Your task to perform on an android device: check android version Image 0: 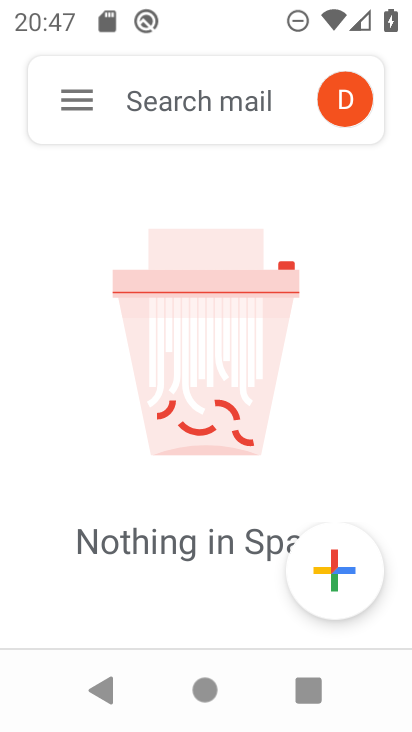
Step 0: press home button
Your task to perform on an android device: check android version Image 1: 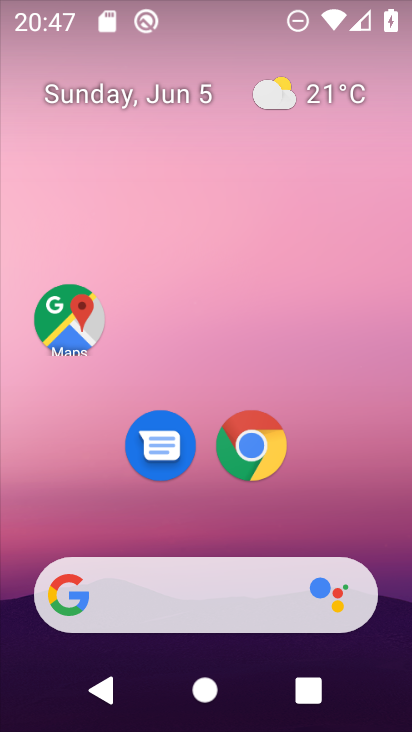
Step 1: drag from (316, 500) to (339, 69)
Your task to perform on an android device: check android version Image 2: 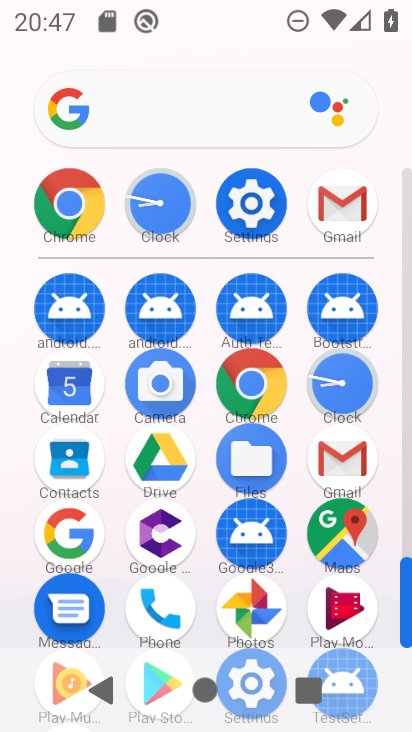
Step 2: click (257, 195)
Your task to perform on an android device: check android version Image 3: 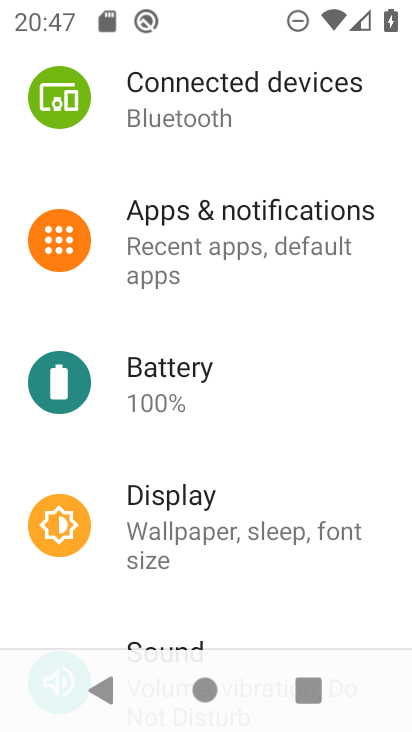
Step 3: drag from (28, 599) to (197, 32)
Your task to perform on an android device: check android version Image 4: 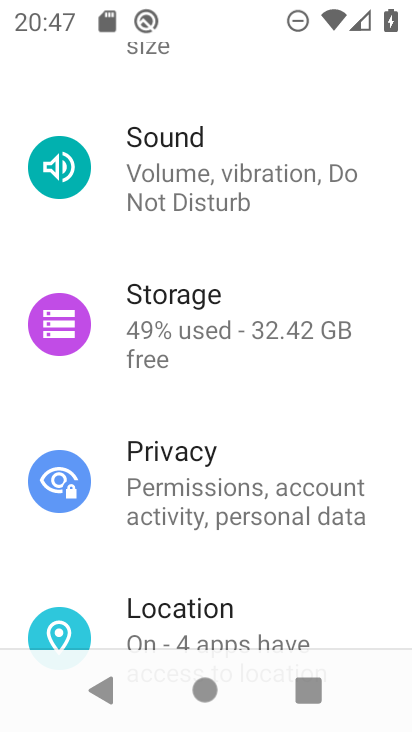
Step 4: drag from (31, 567) to (78, 58)
Your task to perform on an android device: check android version Image 5: 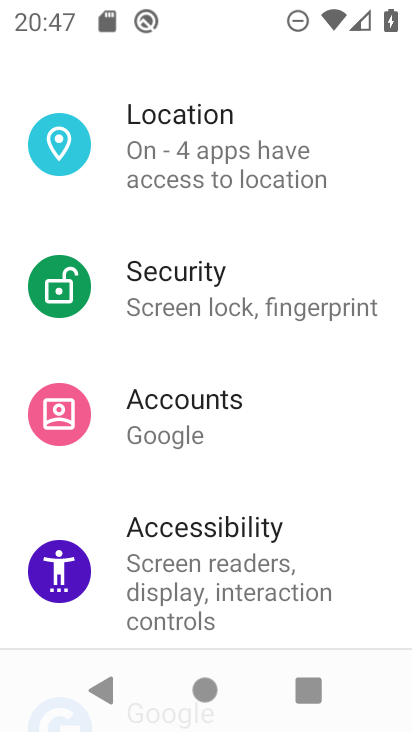
Step 5: drag from (26, 640) to (119, 110)
Your task to perform on an android device: check android version Image 6: 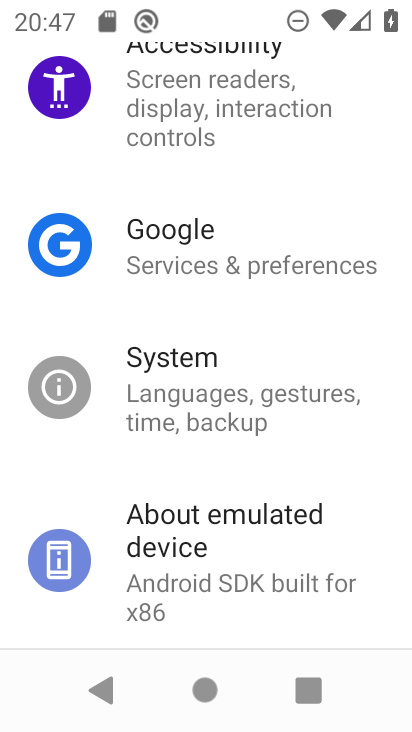
Step 6: drag from (44, 617) to (95, 189)
Your task to perform on an android device: check android version Image 7: 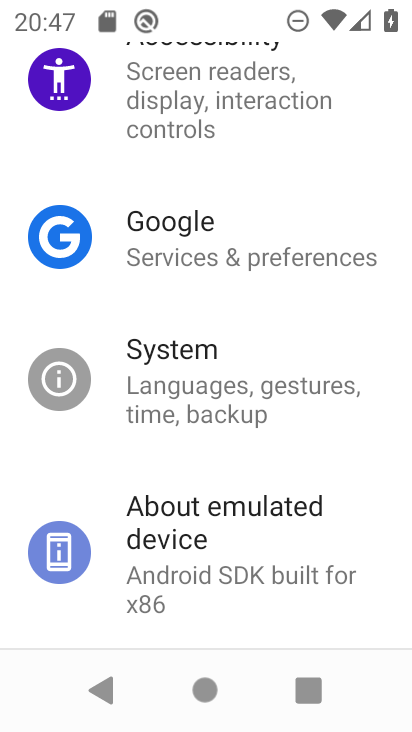
Step 7: click (183, 532)
Your task to perform on an android device: check android version Image 8: 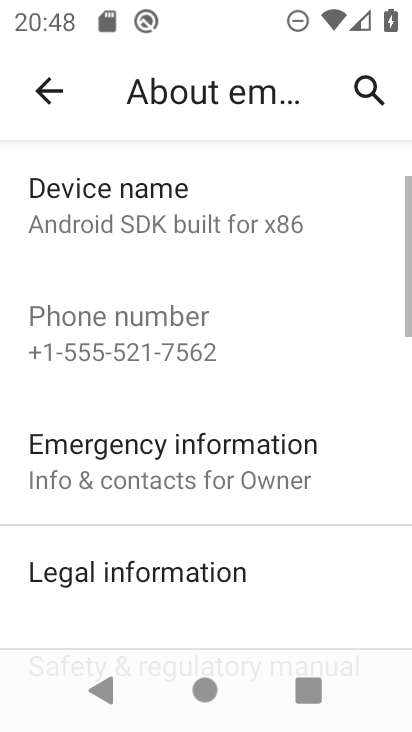
Step 8: task complete